Your task to perform on an android device: Go to eBay Image 0: 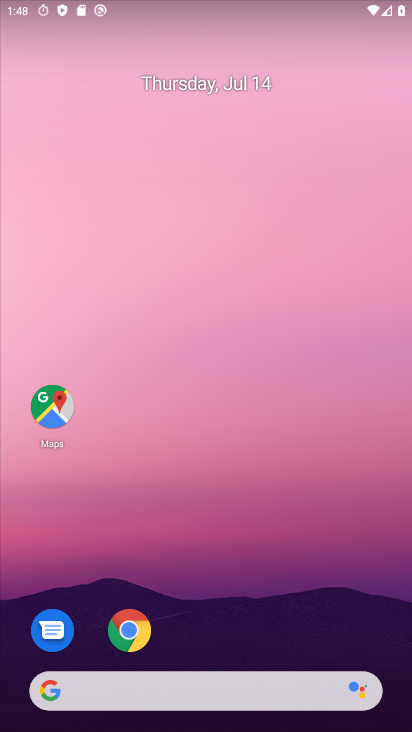
Step 0: drag from (176, 658) to (227, 425)
Your task to perform on an android device: Go to eBay Image 1: 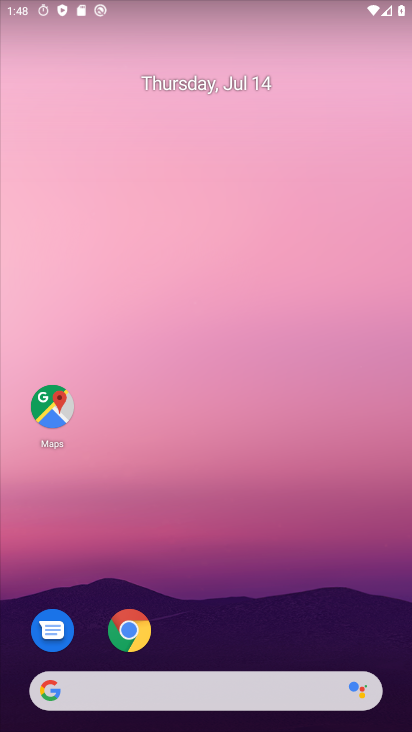
Step 1: drag from (184, 640) to (217, 290)
Your task to perform on an android device: Go to eBay Image 2: 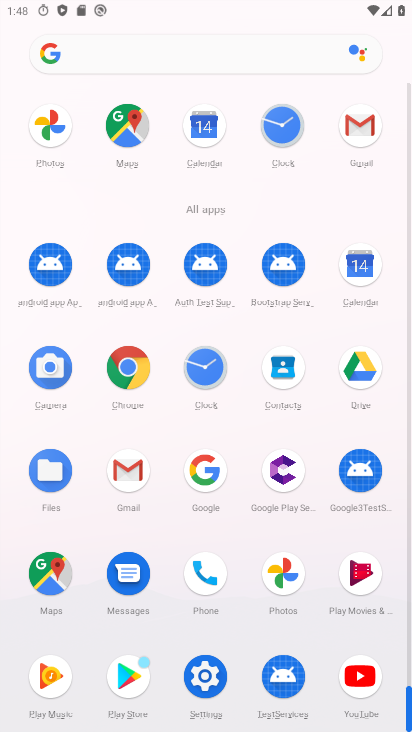
Step 2: click (233, 54)
Your task to perform on an android device: Go to eBay Image 3: 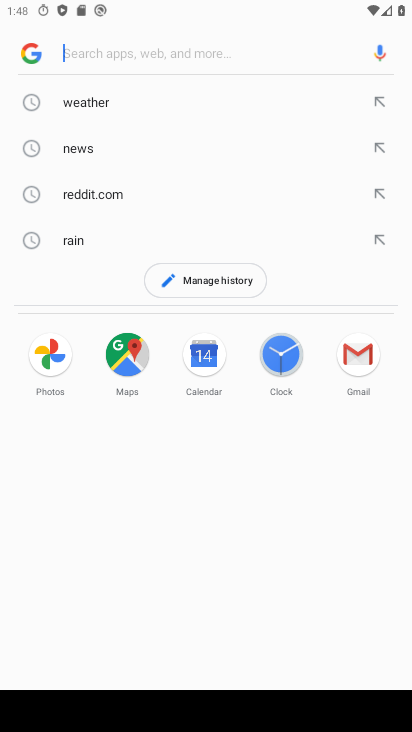
Step 3: type "ebay"
Your task to perform on an android device: Go to eBay Image 4: 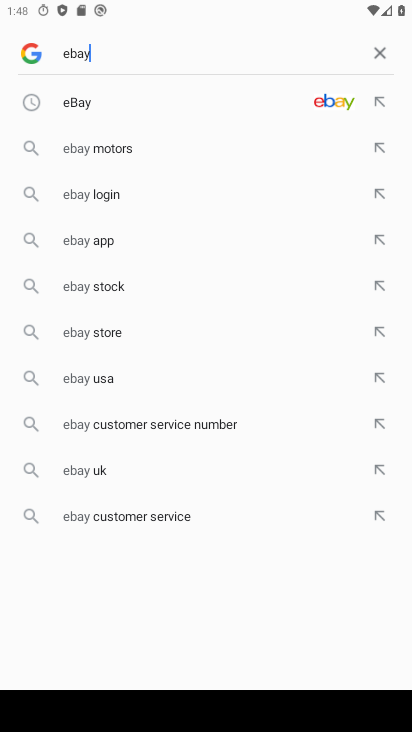
Step 4: click (176, 104)
Your task to perform on an android device: Go to eBay Image 5: 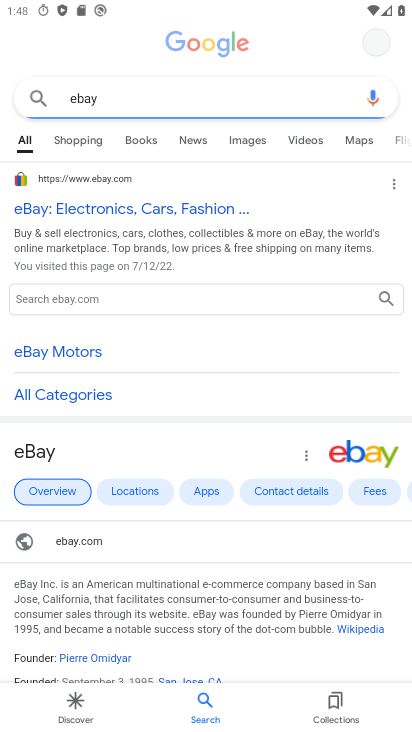
Step 5: drag from (235, 566) to (281, 313)
Your task to perform on an android device: Go to eBay Image 6: 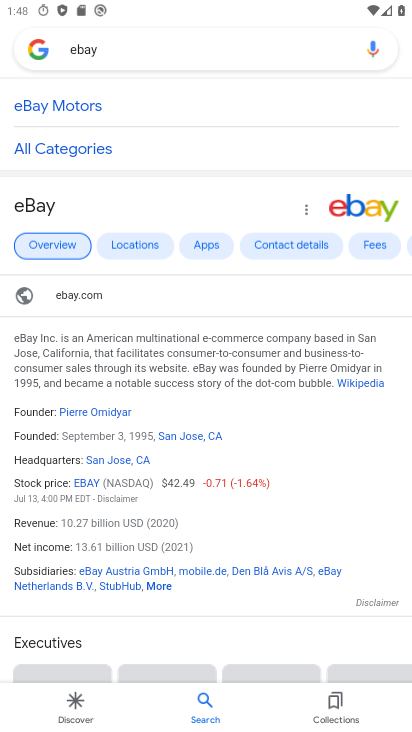
Step 6: drag from (148, 167) to (197, 574)
Your task to perform on an android device: Go to eBay Image 7: 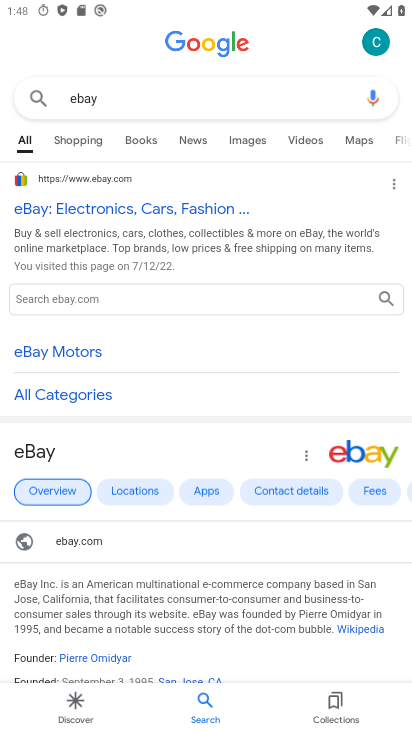
Step 7: drag from (213, 520) to (245, 310)
Your task to perform on an android device: Go to eBay Image 8: 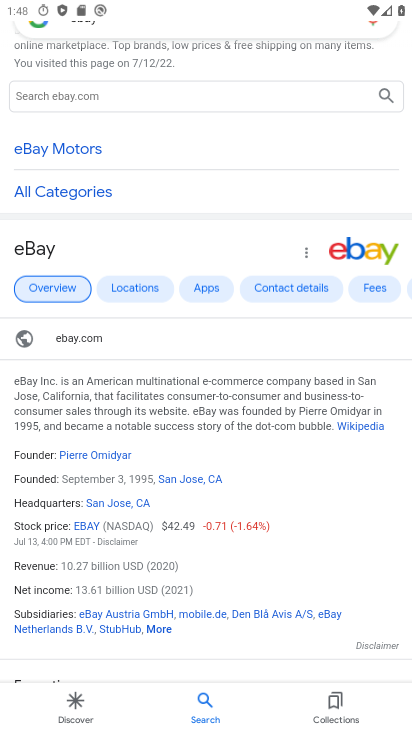
Step 8: drag from (265, 170) to (288, 598)
Your task to perform on an android device: Go to eBay Image 9: 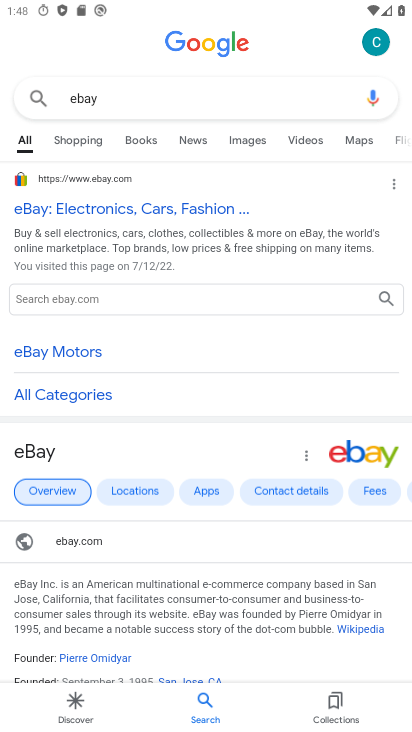
Step 9: drag from (215, 167) to (316, 564)
Your task to perform on an android device: Go to eBay Image 10: 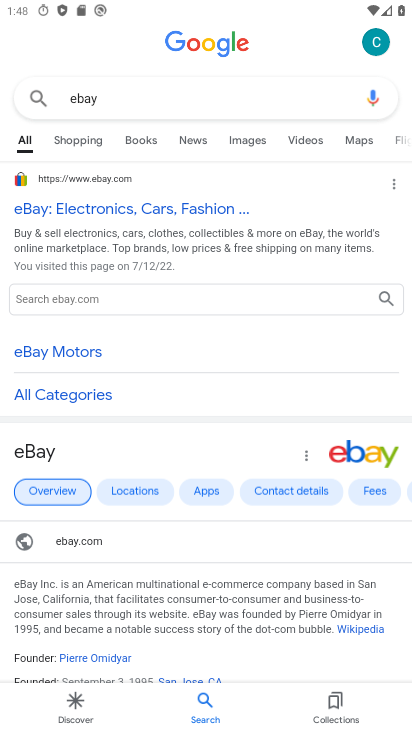
Step 10: click (68, 211)
Your task to perform on an android device: Go to eBay Image 11: 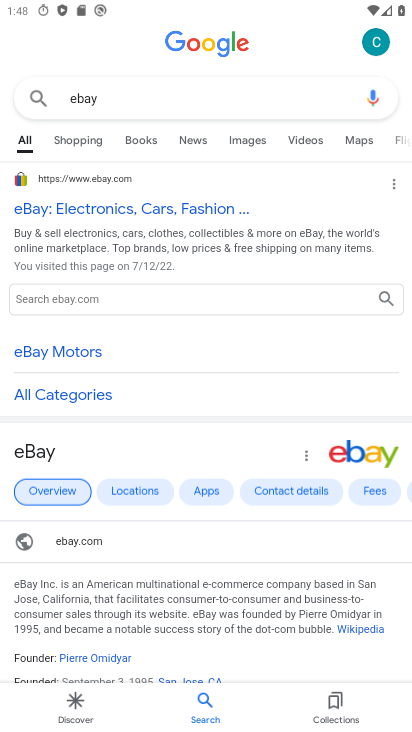
Step 11: click (68, 211)
Your task to perform on an android device: Go to eBay Image 12: 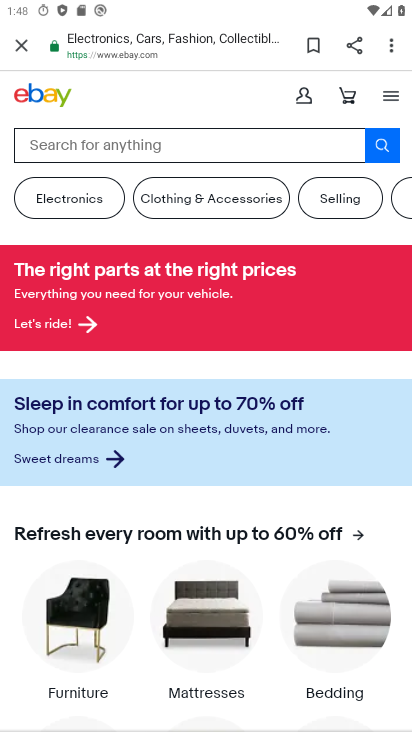
Step 12: task complete